Your task to perform on an android device: find snoozed emails in the gmail app Image 0: 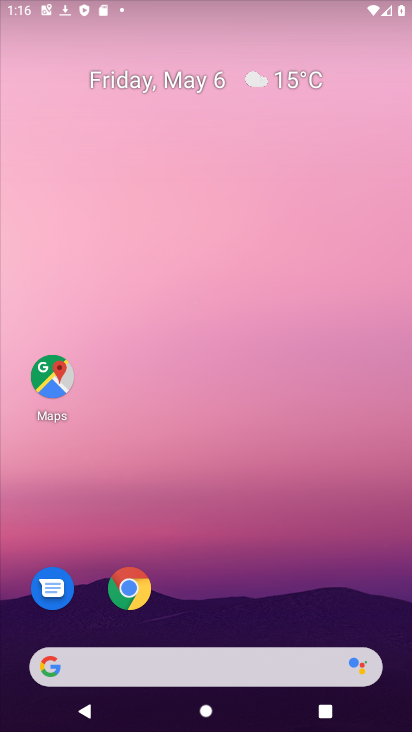
Step 0: drag from (239, 632) to (244, 186)
Your task to perform on an android device: find snoozed emails in the gmail app Image 1: 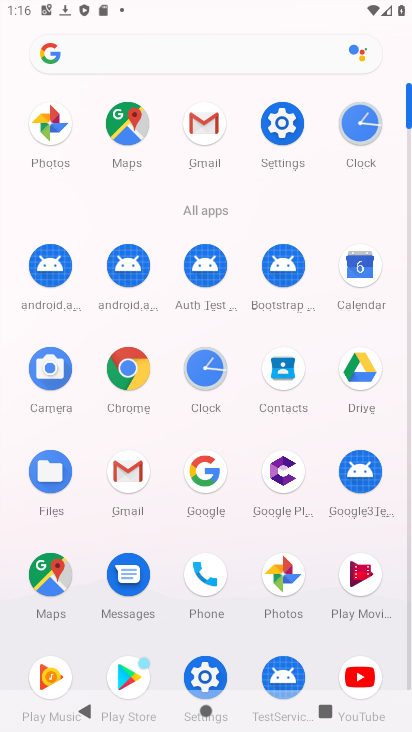
Step 1: click (134, 464)
Your task to perform on an android device: find snoozed emails in the gmail app Image 2: 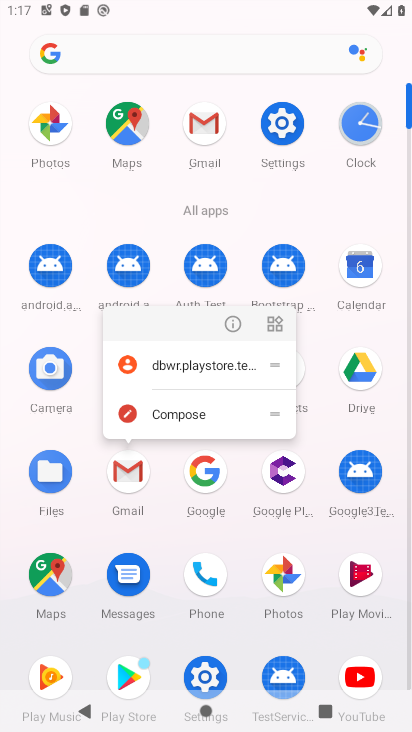
Step 2: click (225, 315)
Your task to perform on an android device: find snoozed emails in the gmail app Image 3: 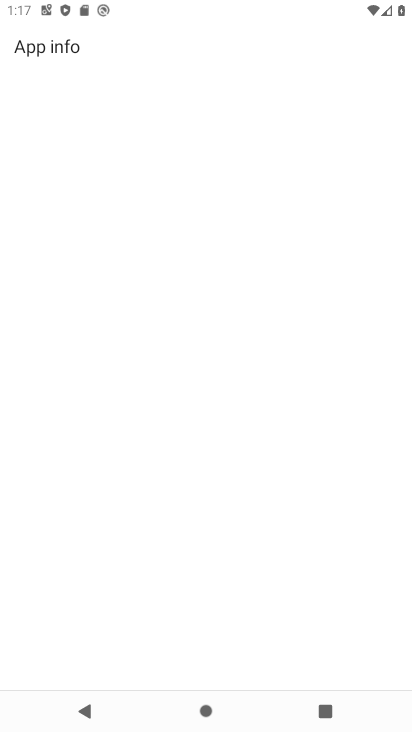
Step 3: drag from (173, 268) to (178, 233)
Your task to perform on an android device: find snoozed emails in the gmail app Image 4: 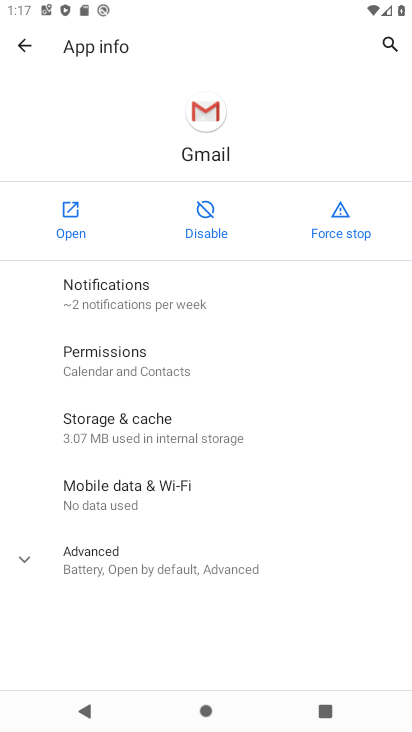
Step 4: click (57, 191)
Your task to perform on an android device: find snoozed emails in the gmail app Image 5: 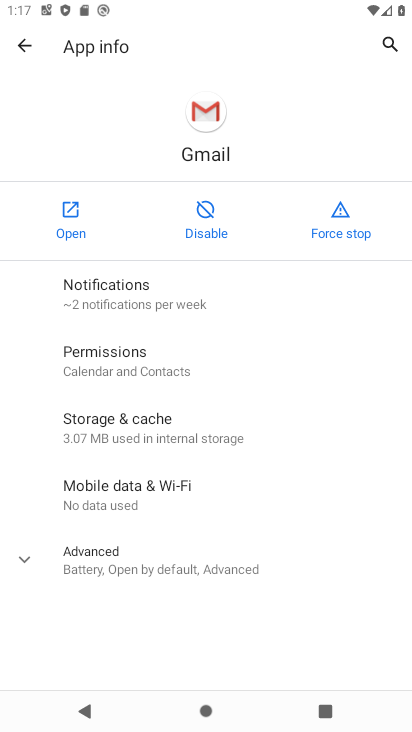
Step 5: click (60, 196)
Your task to perform on an android device: find snoozed emails in the gmail app Image 6: 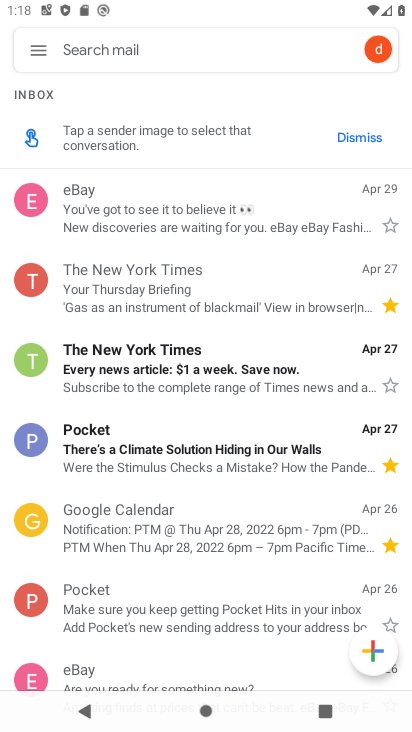
Step 6: drag from (175, 498) to (240, 178)
Your task to perform on an android device: find snoozed emails in the gmail app Image 7: 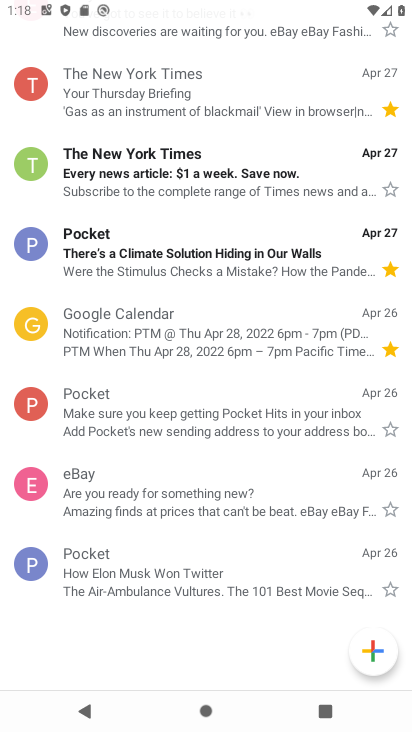
Step 7: drag from (127, 62) to (230, 731)
Your task to perform on an android device: find snoozed emails in the gmail app Image 8: 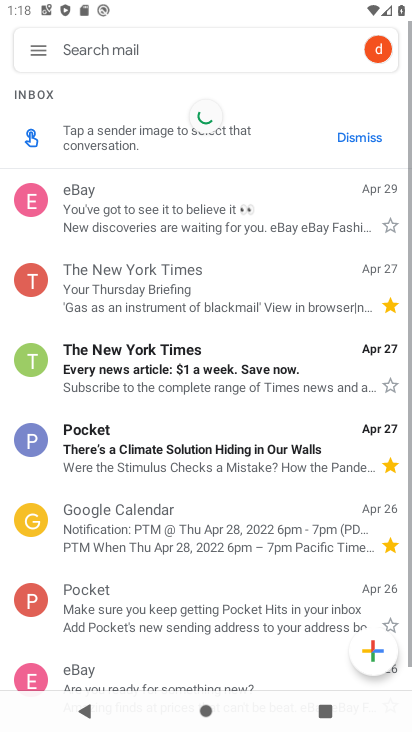
Step 8: click (40, 52)
Your task to perform on an android device: find snoozed emails in the gmail app Image 9: 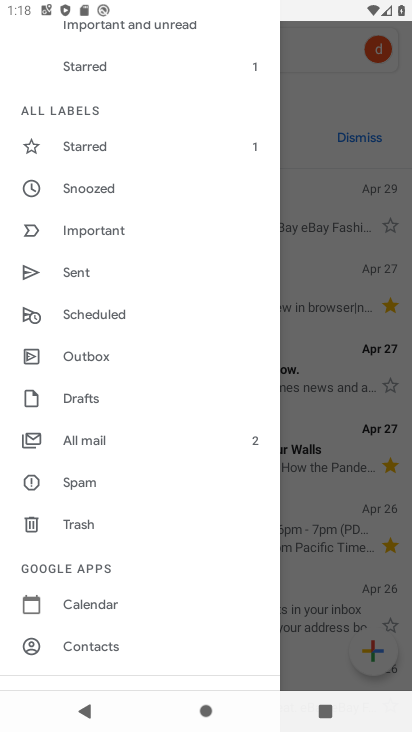
Step 9: click (117, 190)
Your task to perform on an android device: find snoozed emails in the gmail app Image 10: 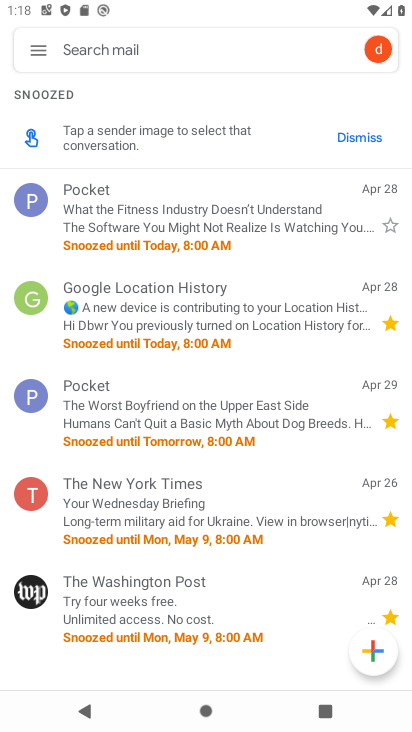
Step 10: task complete